Your task to perform on an android device: Do I have any events today? Image 0: 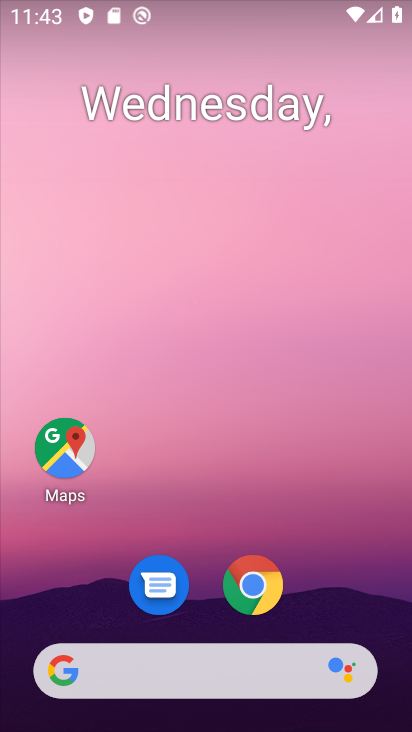
Step 0: drag from (312, 600) to (262, 50)
Your task to perform on an android device: Do I have any events today? Image 1: 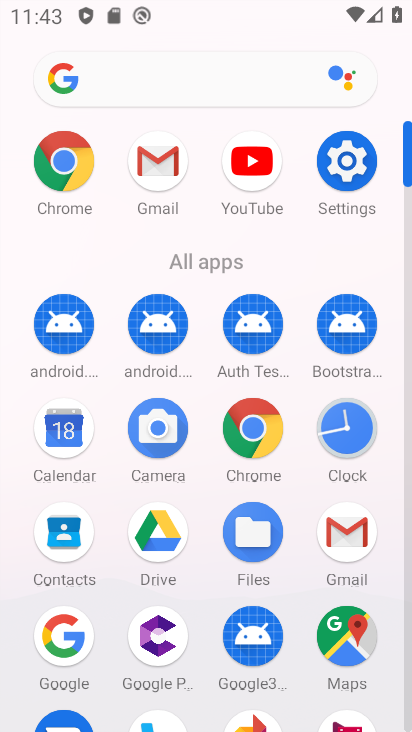
Step 1: click (63, 424)
Your task to perform on an android device: Do I have any events today? Image 2: 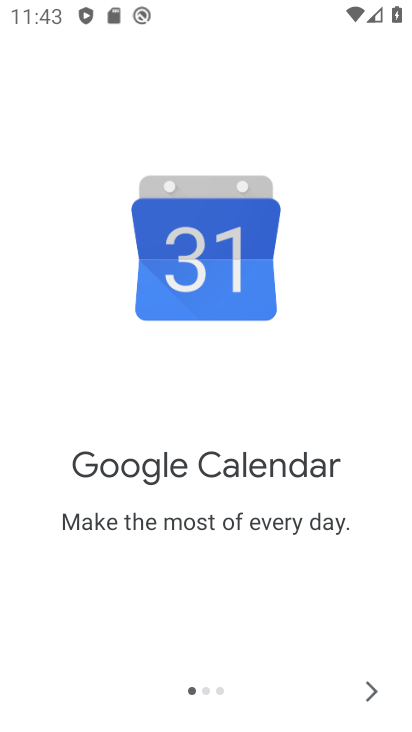
Step 2: click (369, 684)
Your task to perform on an android device: Do I have any events today? Image 3: 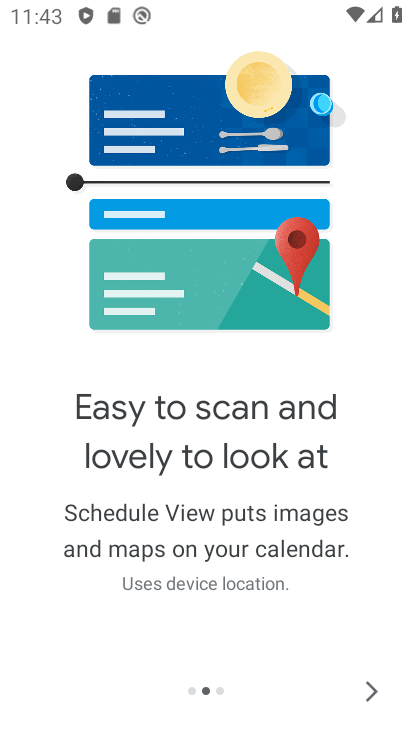
Step 3: click (367, 690)
Your task to perform on an android device: Do I have any events today? Image 4: 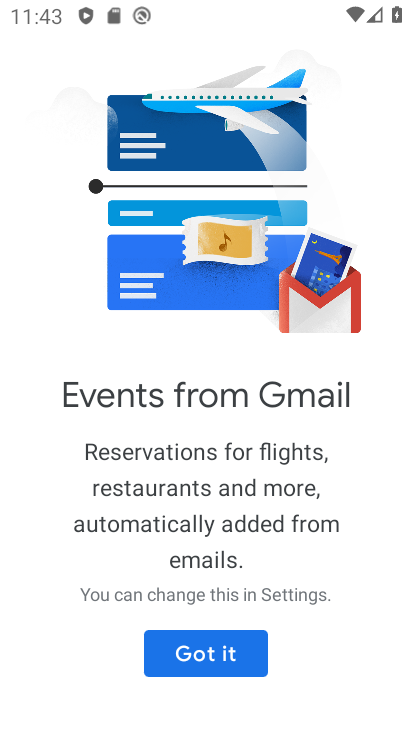
Step 4: click (246, 647)
Your task to perform on an android device: Do I have any events today? Image 5: 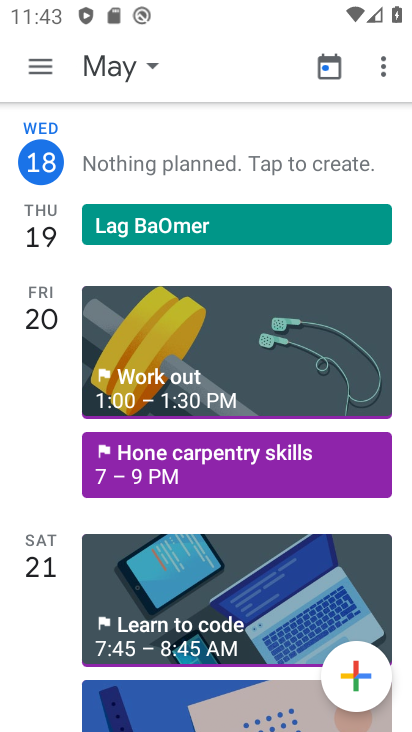
Step 5: task complete